Your task to perform on an android device: search for starred emails in the gmail app Image 0: 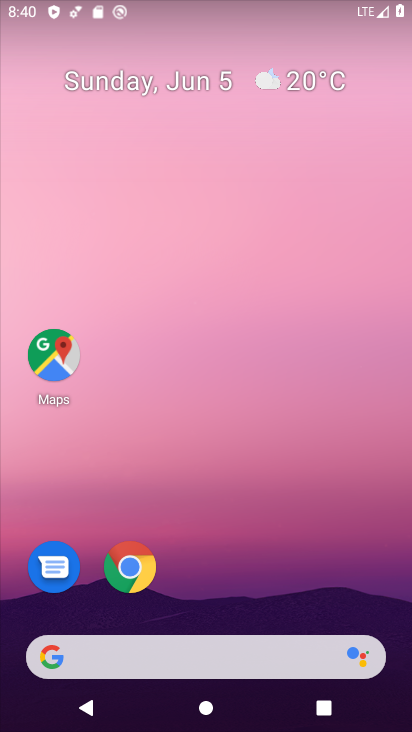
Step 0: drag from (290, 556) to (268, 52)
Your task to perform on an android device: search for starred emails in the gmail app Image 1: 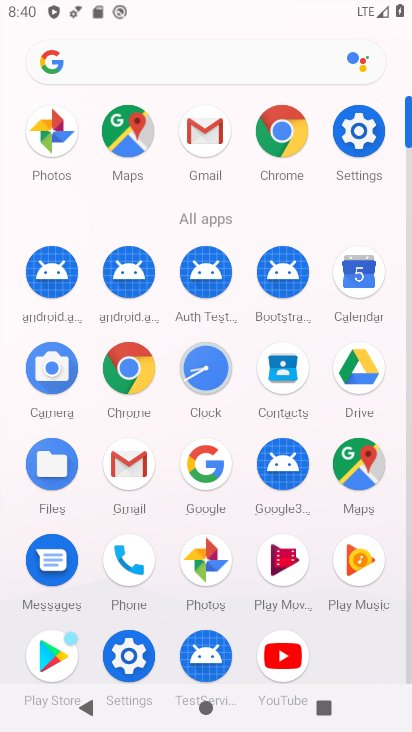
Step 1: click (202, 131)
Your task to perform on an android device: search for starred emails in the gmail app Image 2: 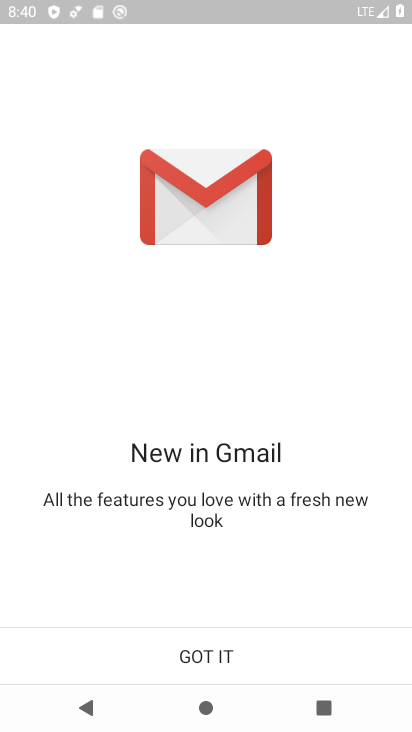
Step 2: click (211, 653)
Your task to perform on an android device: search for starred emails in the gmail app Image 3: 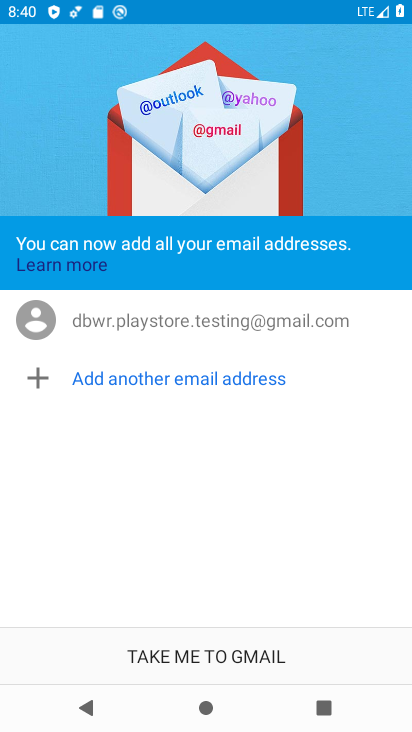
Step 3: click (211, 653)
Your task to perform on an android device: search for starred emails in the gmail app Image 4: 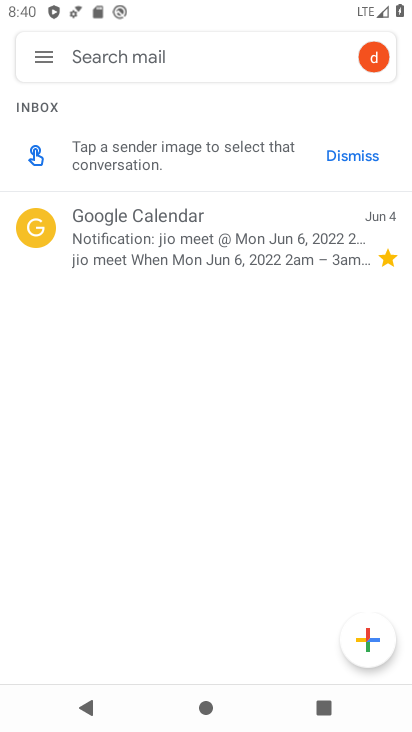
Step 4: click (55, 57)
Your task to perform on an android device: search for starred emails in the gmail app Image 5: 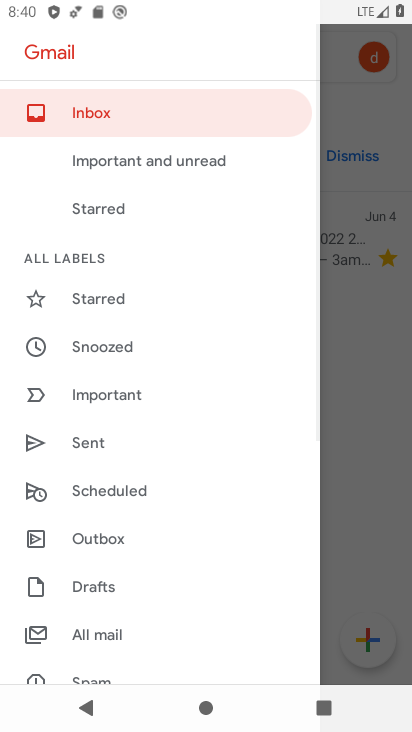
Step 5: click (106, 304)
Your task to perform on an android device: search for starred emails in the gmail app Image 6: 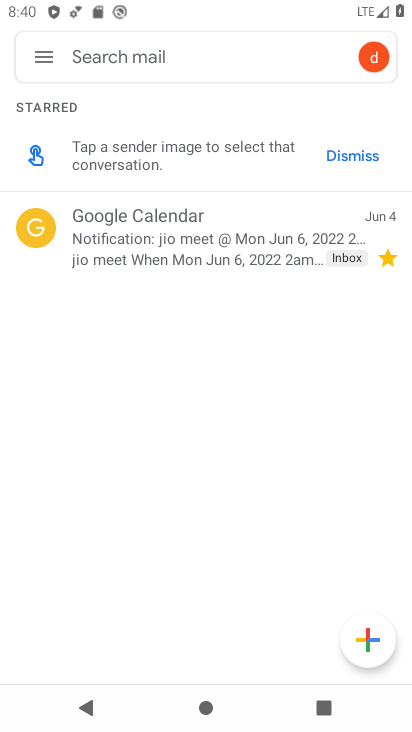
Step 6: task complete